Your task to perform on an android device: toggle show notifications on the lock screen Image 0: 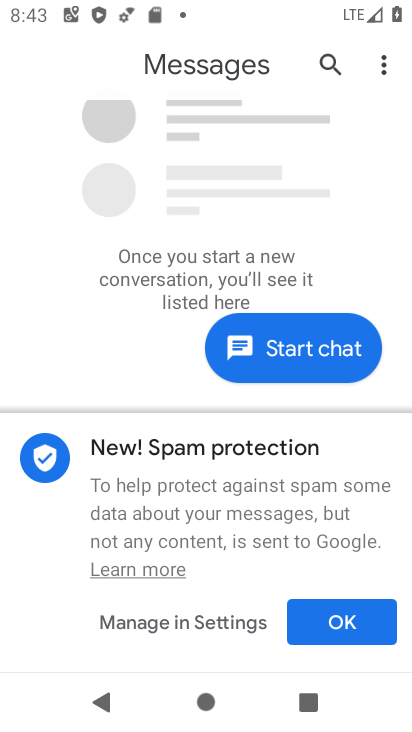
Step 0: press home button
Your task to perform on an android device: toggle show notifications on the lock screen Image 1: 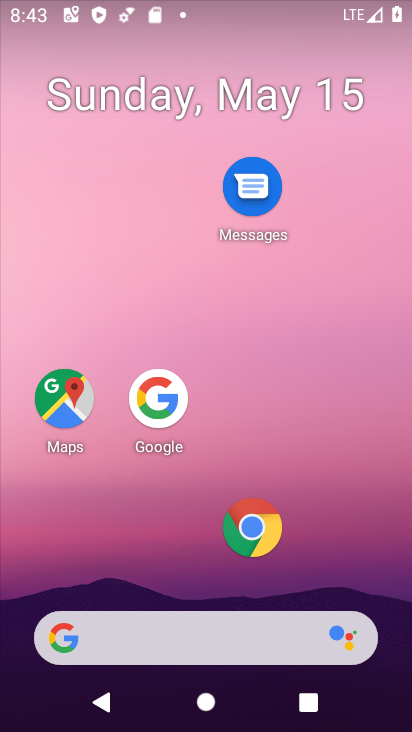
Step 1: drag from (187, 635) to (326, 163)
Your task to perform on an android device: toggle show notifications on the lock screen Image 2: 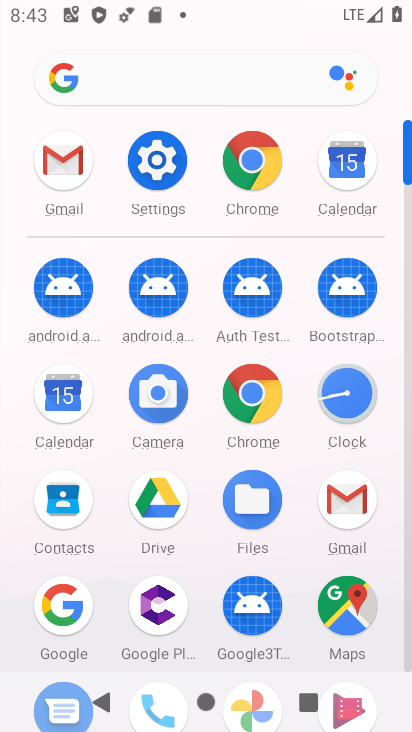
Step 2: click (151, 163)
Your task to perform on an android device: toggle show notifications on the lock screen Image 3: 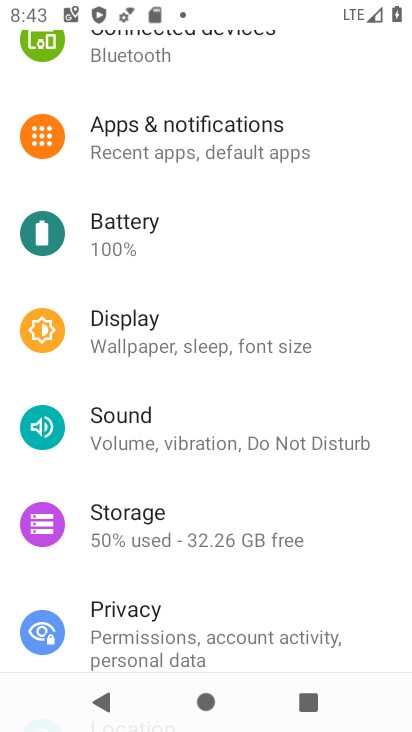
Step 3: click (248, 148)
Your task to perform on an android device: toggle show notifications on the lock screen Image 4: 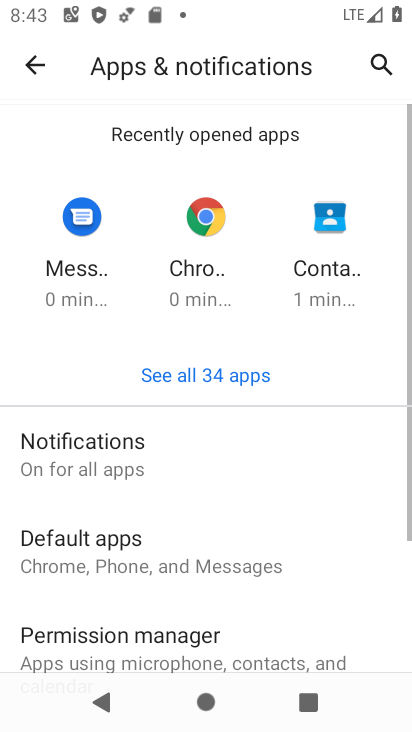
Step 4: click (82, 451)
Your task to perform on an android device: toggle show notifications on the lock screen Image 5: 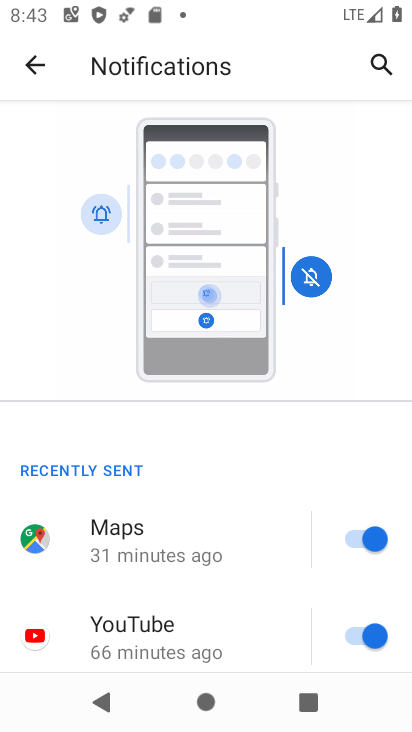
Step 5: drag from (253, 488) to (386, 142)
Your task to perform on an android device: toggle show notifications on the lock screen Image 6: 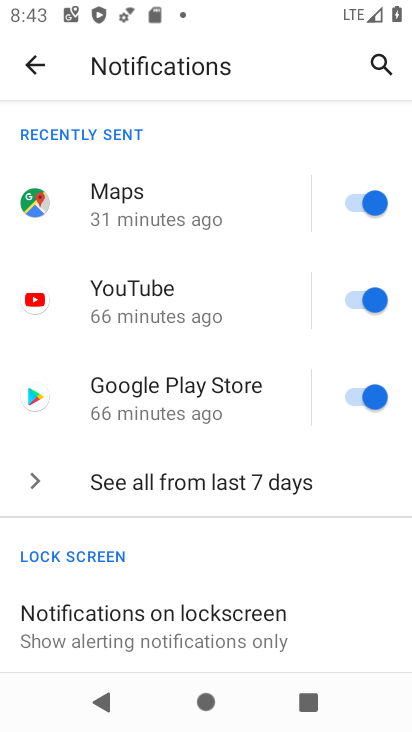
Step 6: click (157, 616)
Your task to perform on an android device: toggle show notifications on the lock screen Image 7: 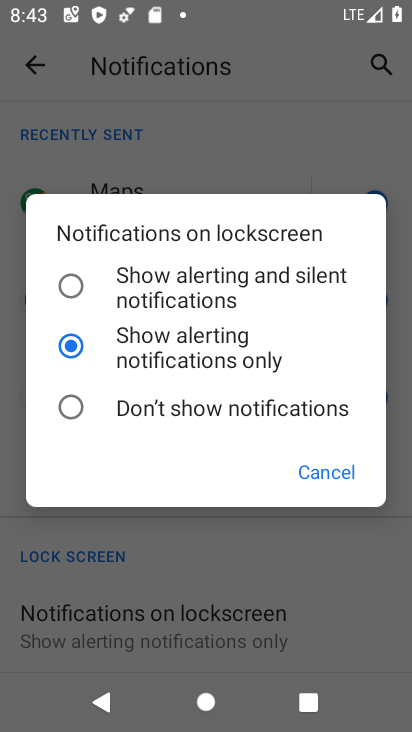
Step 7: click (66, 284)
Your task to perform on an android device: toggle show notifications on the lock screen Image 8: 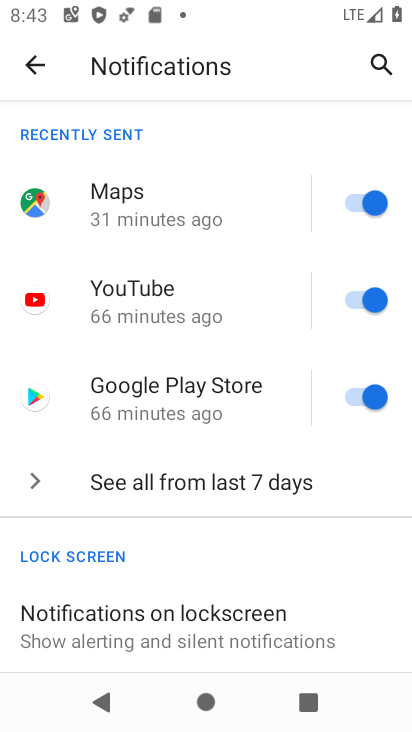
Step 8: task complete